Your task to perform on an android device: see creations saved in the google photos Image 0: 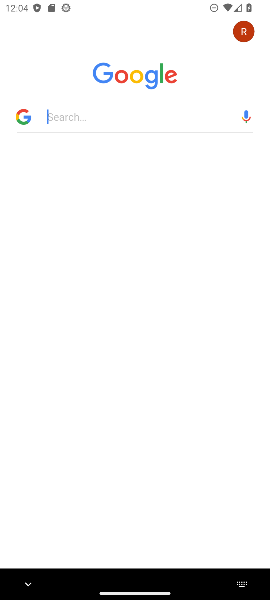
Step 0: press home button
Your task to perform on an android device: see creations saved in the google photos Image 1: 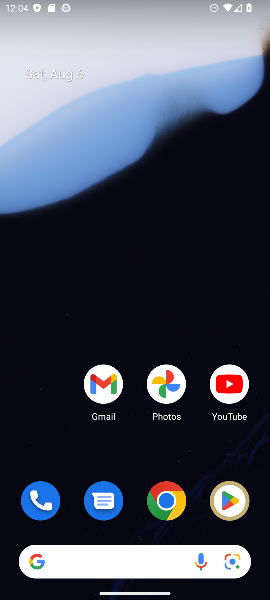
Step 1: click (155, 393)
Your task to perform on an android device: see creations saved in the google photos Image 2: 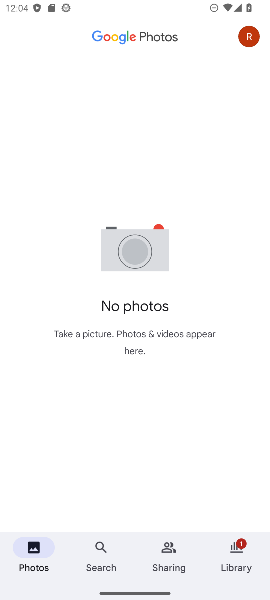
Step 2: click (237, 543)
Your task to perform on an android device: see creations saved in the google photos Image 3: 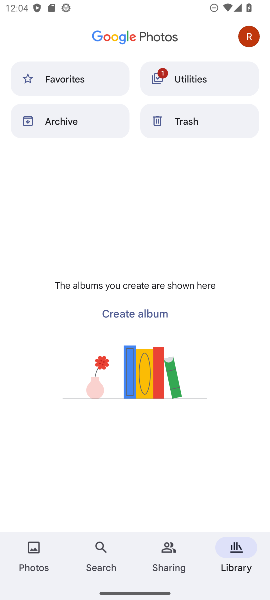
Step 3: click (104, 554)
Your task to perform on an android device: see creations saved in the google photos Image 4: 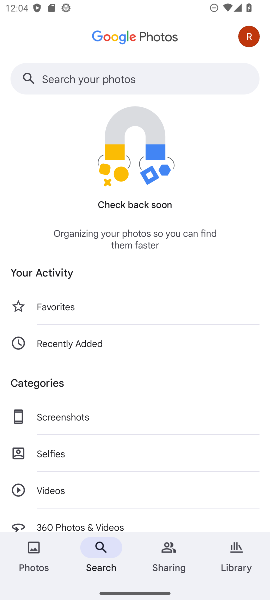
Step 4: drag from (90, 368) to (87, 144)
Your task to perform on an android device: see creations saved in the google photos Image 5: 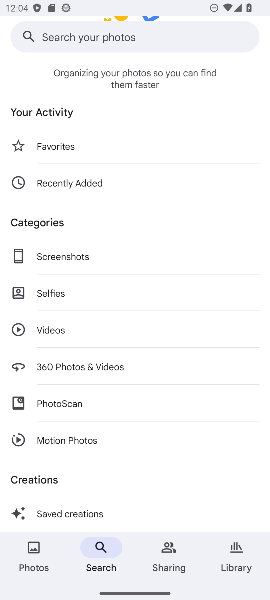
Step 5: click (58, 509)
Your task to perform on an android device: see creations saved in the google photos Image 6: 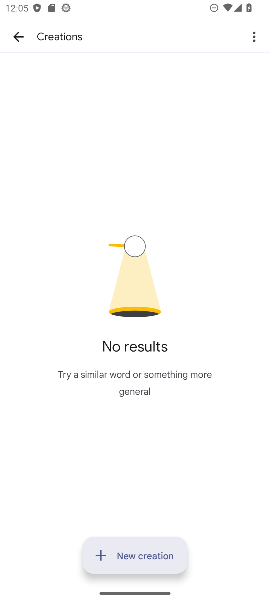
Step 6: task complete